Your task to perform on an android device: Open Android settings Image 0: 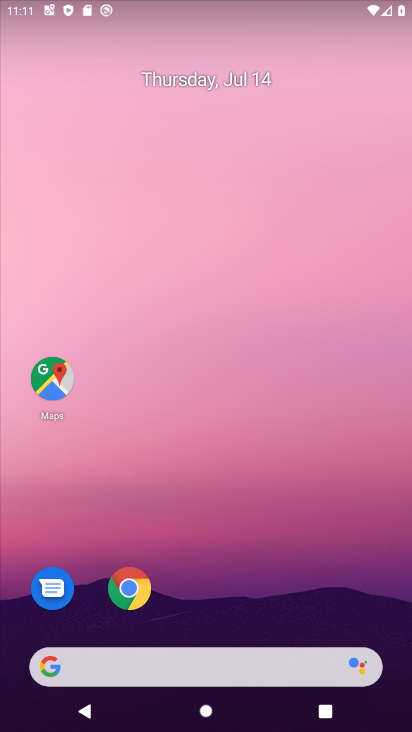
Step 0: drag from (384, 650) to (391, 267)
Your task to perform on an android device: Open Android settings Image 1: 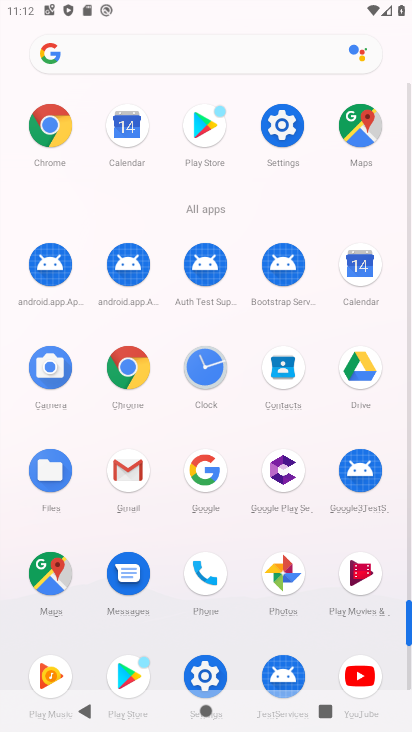
Step 1: click (407, 678)
Your task to perform on an android device: Open Android settings Image 2: 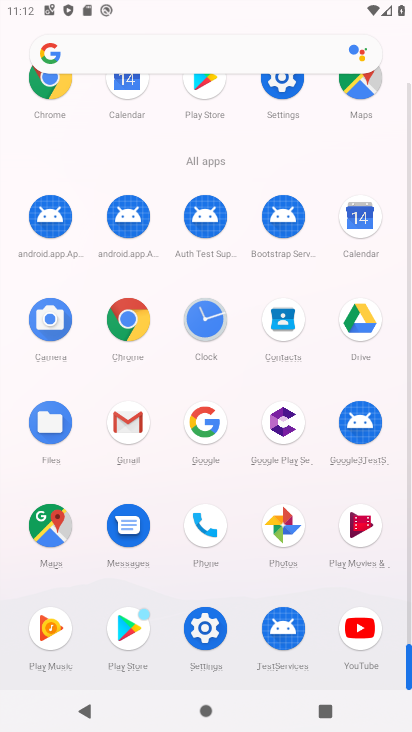
Step 2: click (203, 631)
Your task to perform on an android device: Open Android settings Image 3: 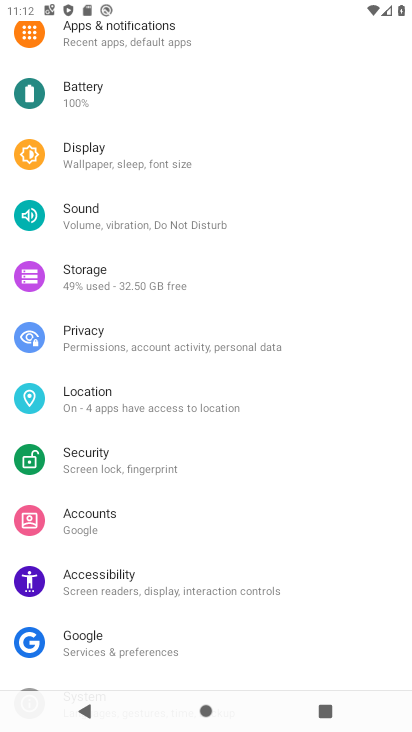
Step 3: drag from (348, 606) to (330, 399)
Your task to perform on an android device: Open Android settings Image 4: 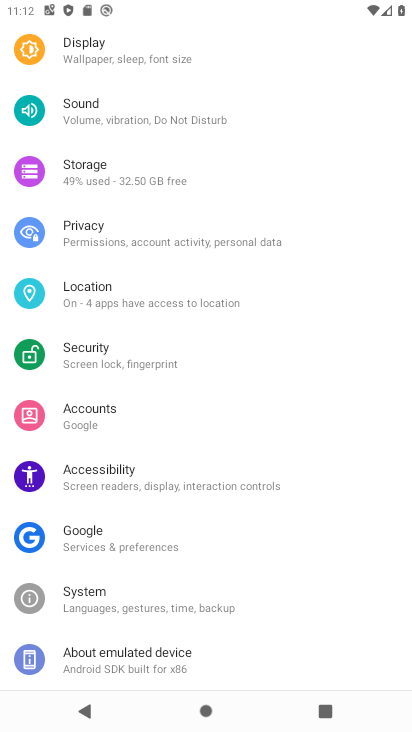
Step 4: click (83, 646)
Your task to perform on an android device: Open Android settings Image 5: 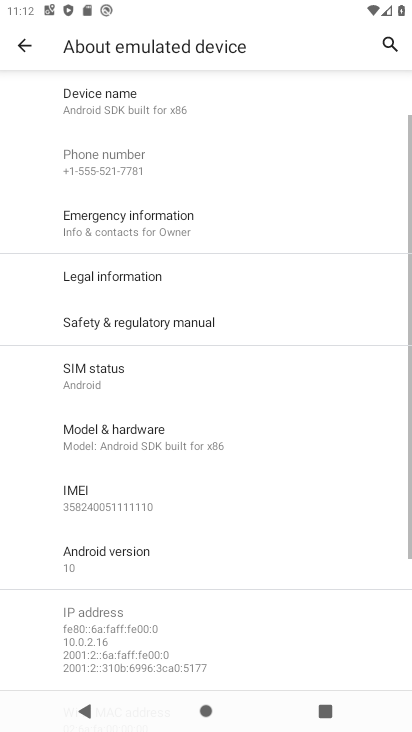
Step 5: task complete